Your task to perform on an android device: open a new tab in the chrome app Image 0: 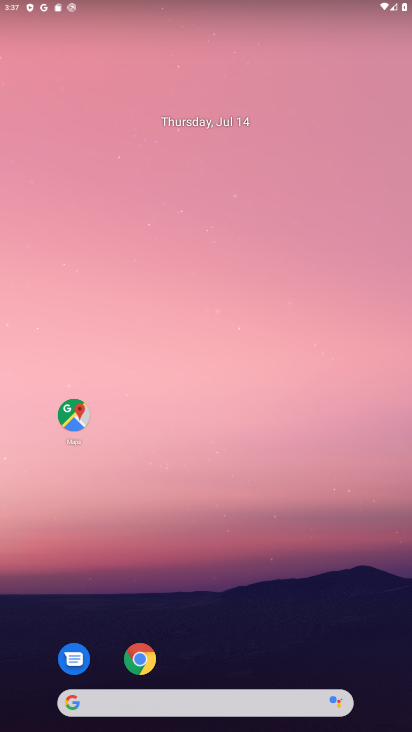
Step 0: drag from (300, 627) to (316, 153)
Your task to perform on an android device: open a new tab in the chrome app Image 1: 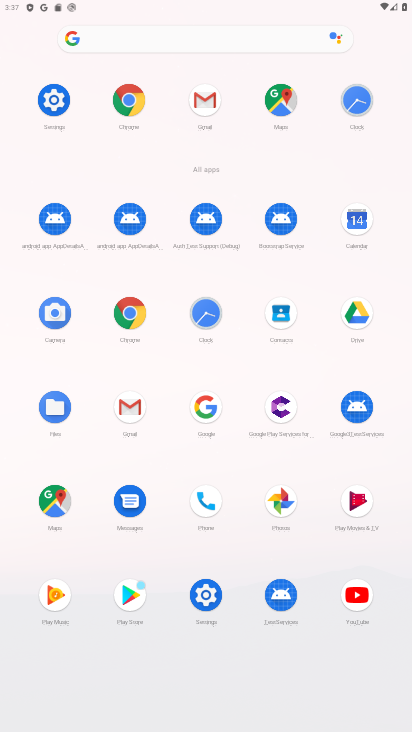
Step 1: click (125, 317)
Your task to perform on an android device: open a new tab in the chrome app Image 2: 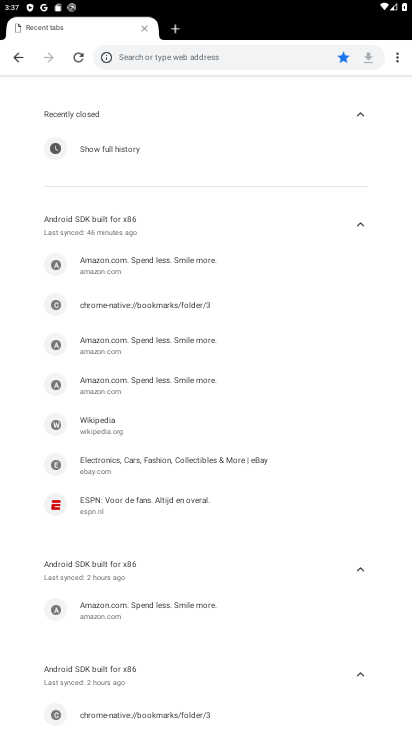
Step 2: click (396, 59)
Your task to perform on an android device: open a new tab in the chrome app Image 3: 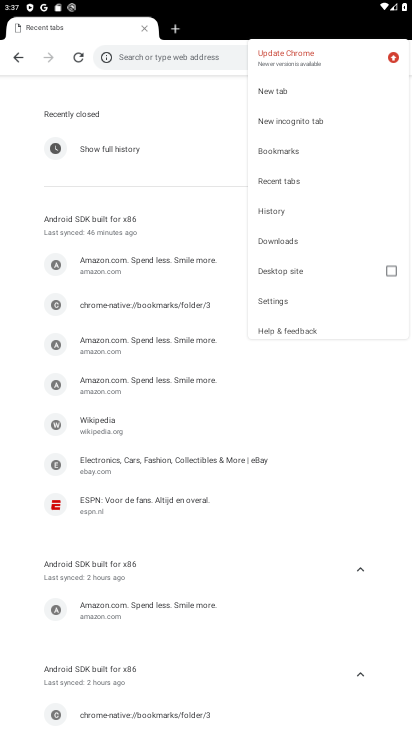
Step 3: click (291, 89)
Your task to perform on an android device: open a new tab in the chrome app Image 4: 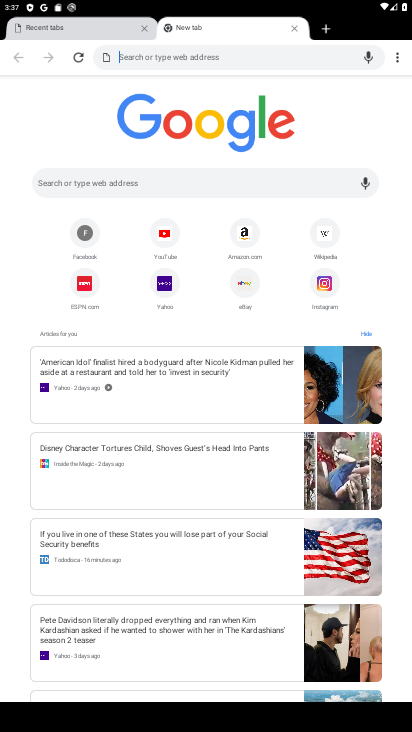
Step 4: task complete